Your task to perform on an android device: Open network settings Image 0: 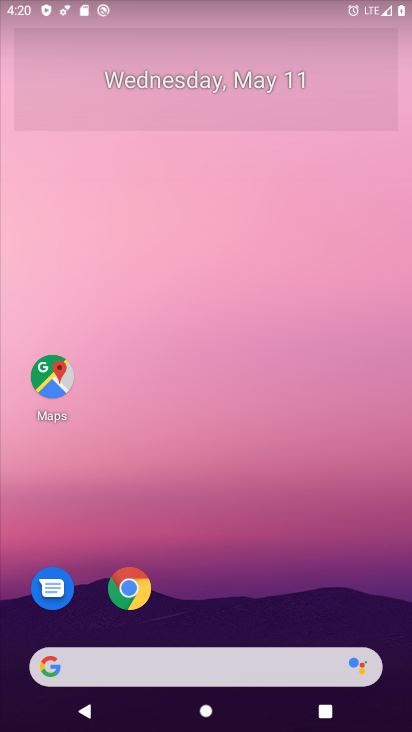
Step 0: drag from (322, 544) to (298, 74)
Your task to perform on an android device: Open network settings Image 1: 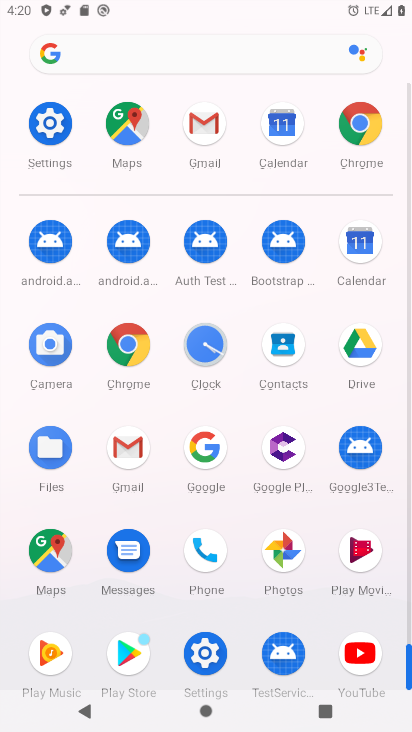
Step 1: click (210, 653)
Your task to perform on an android device: Open network settings Image 2: 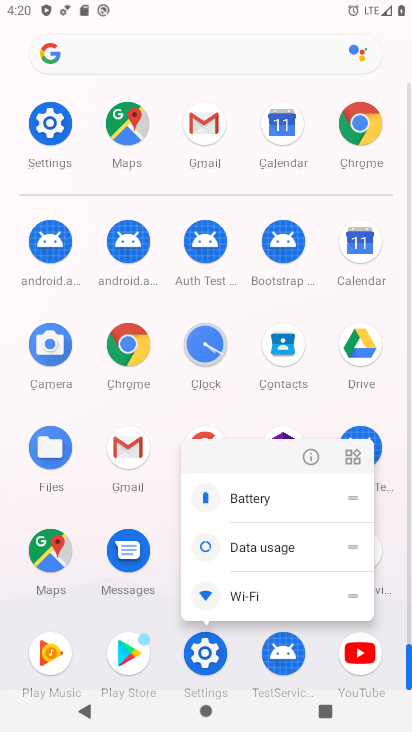
Step 2: click (210, 652)
Your task to perform on an android device: Open network settings Image 3: 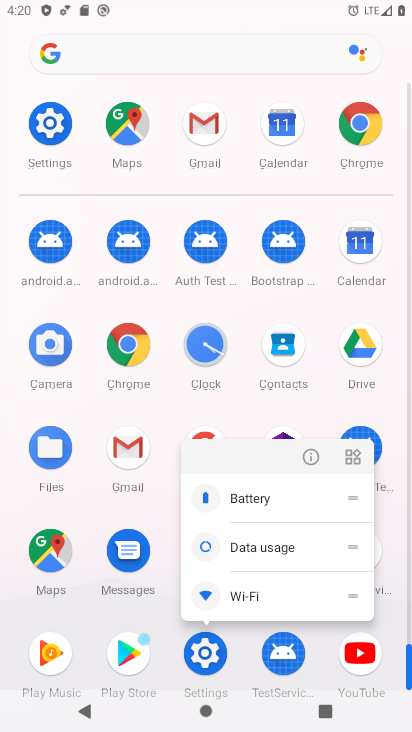
Step 3: click (210, 651)
Your task to perform on an android device: Open network settings Image 4: 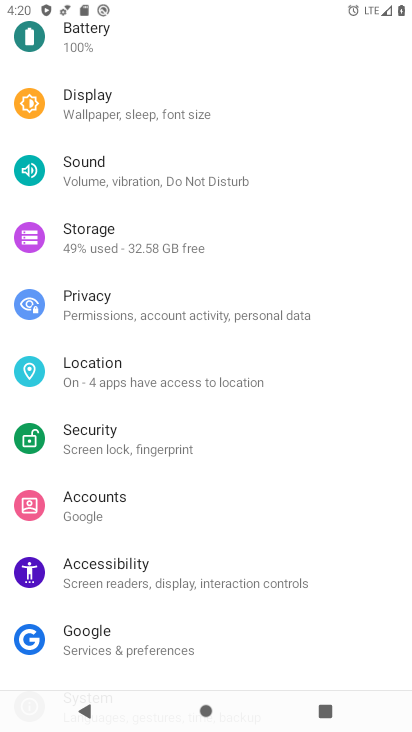
Step 4: drag from (107, 262) to (182, 606)
Your task to perform on an android device: Open network settings Image 5: 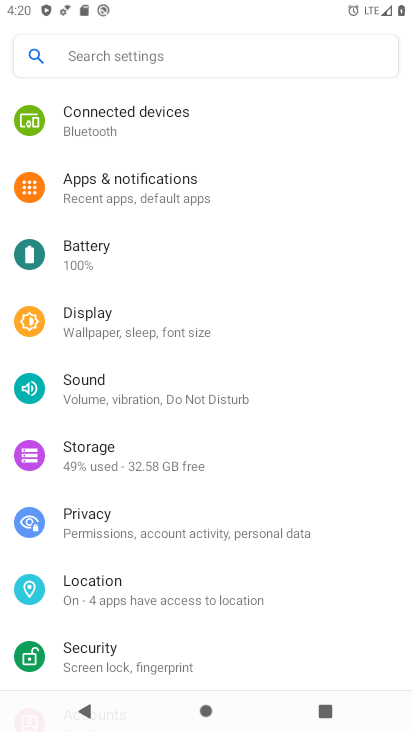
Step 5: drag from (177, 200) to (217, 632)
Your task to perform on an android device: Open network settings Image 6: 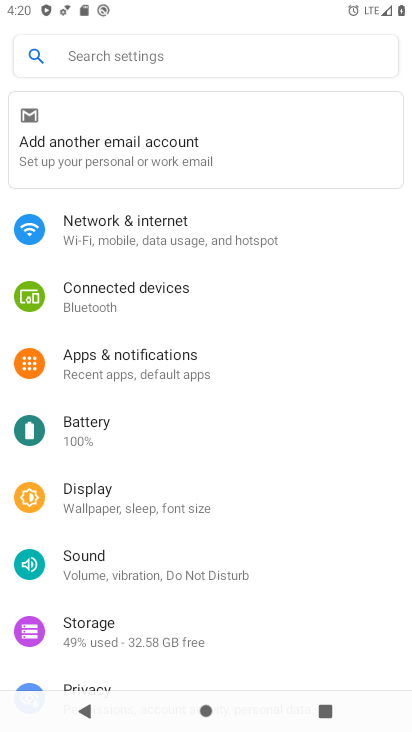
Step 6: click (124, 241)
Your task to perform on an android device: Open network settings Image 7: 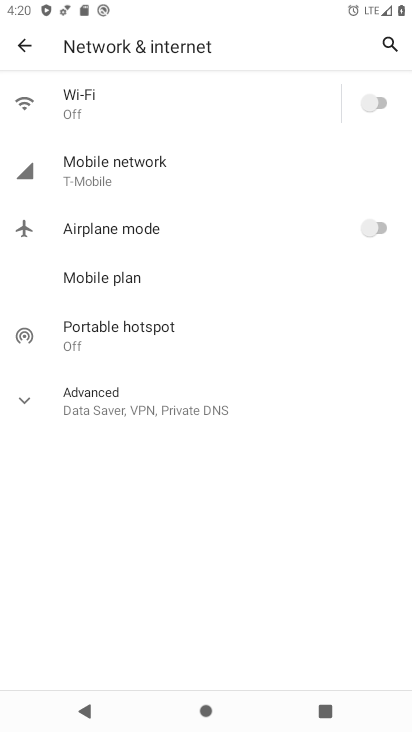
Step 7: click (107, 182)
Your task to perform on an android device: Open network settings Image 8: 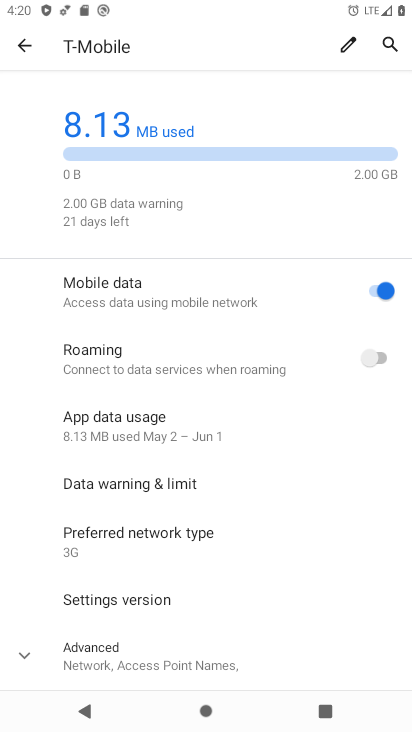
Step 8: task complete